Your task to perform on an android device: Open maps Image 0: 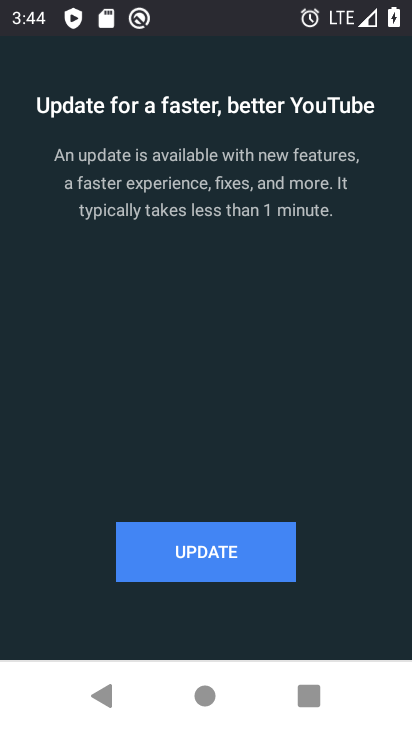
Step 0: press home button
Your task to perform on an android device: Open maps Image 1: 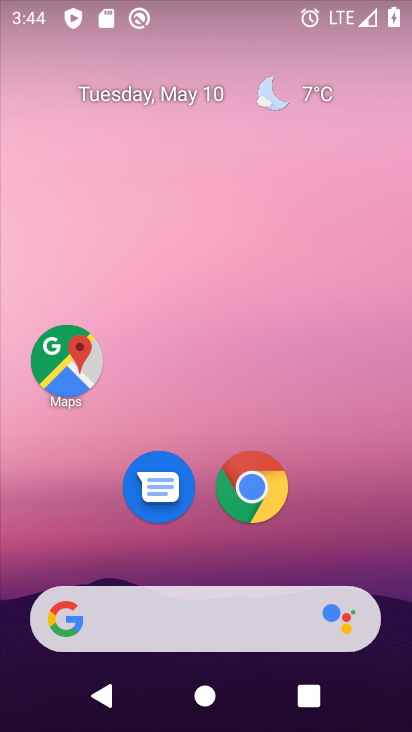
Step 1: click (336, 517)
Your task to perform on an android device: Open maps Image 2: 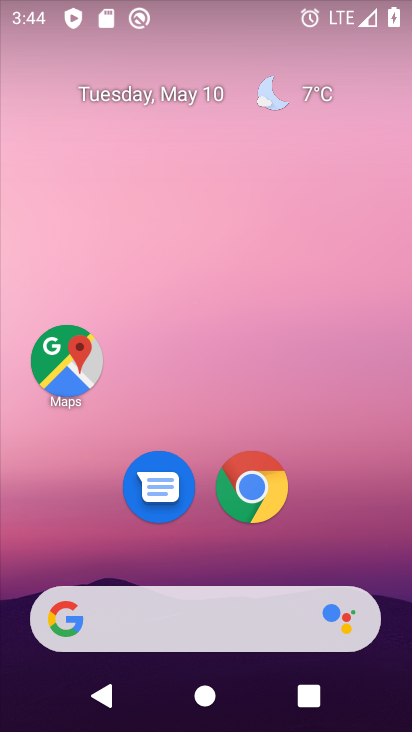
Step 2: click (66, 372)
Your task to perform on an android device: Open maps Image 3: 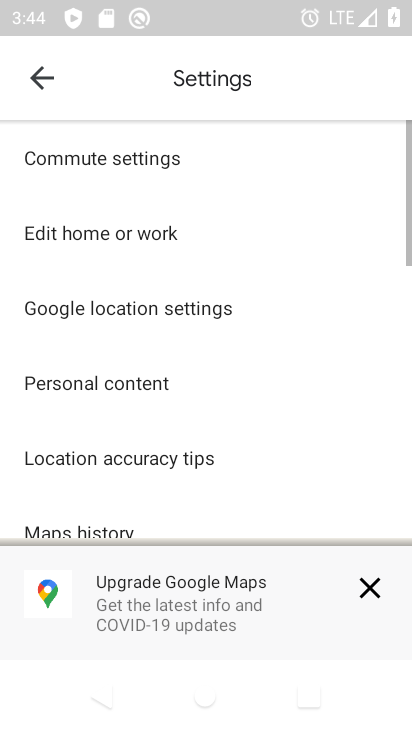
Step 3: task complete